Your task to perform on an android device: uninstall "Duolingo: language lessons" Image 0: 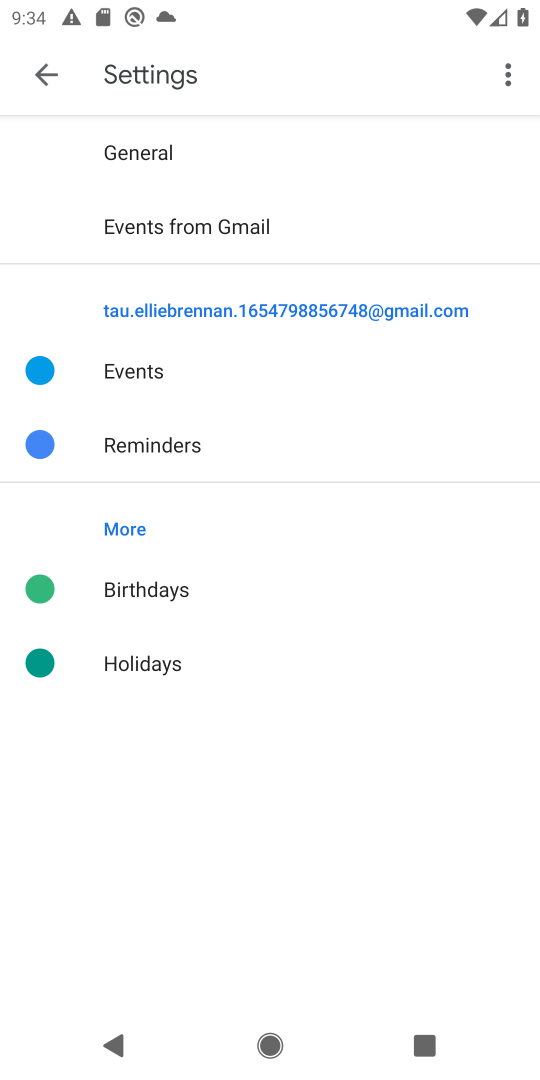
Step 0: click (46, 76)
Your task to perform on an android device: uninstall "Duolingo: language lessons" Image 1: 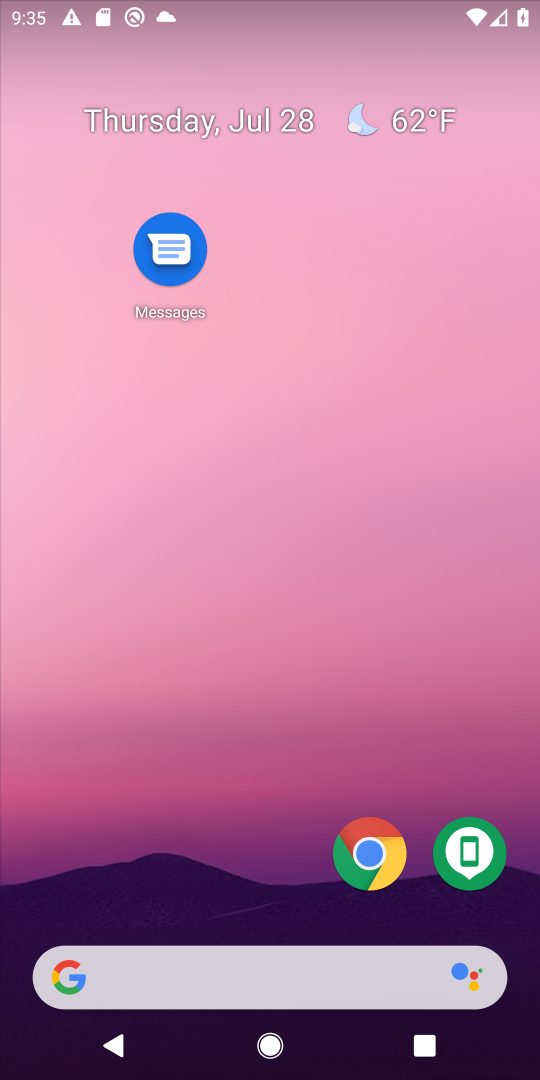
Step 1: drag from (221, 883) to (200, 2)
Your task to perform on an android device: uninstall "Duolingo: language lessons" Image 2: 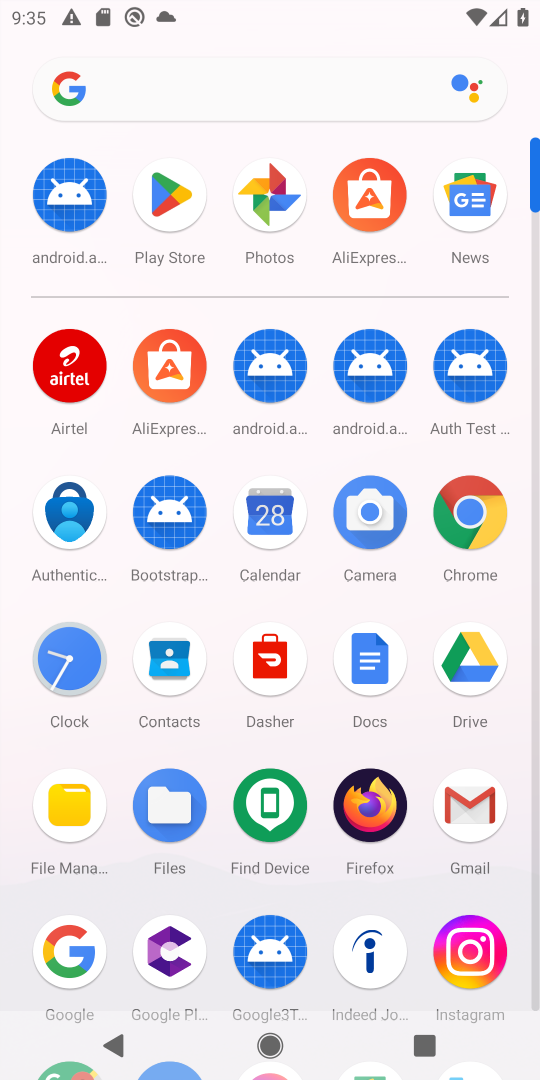
Step 2: click (179, 212)
Your task to perform on an android device: uninstall "Duolingo: language lessons" Image 3: 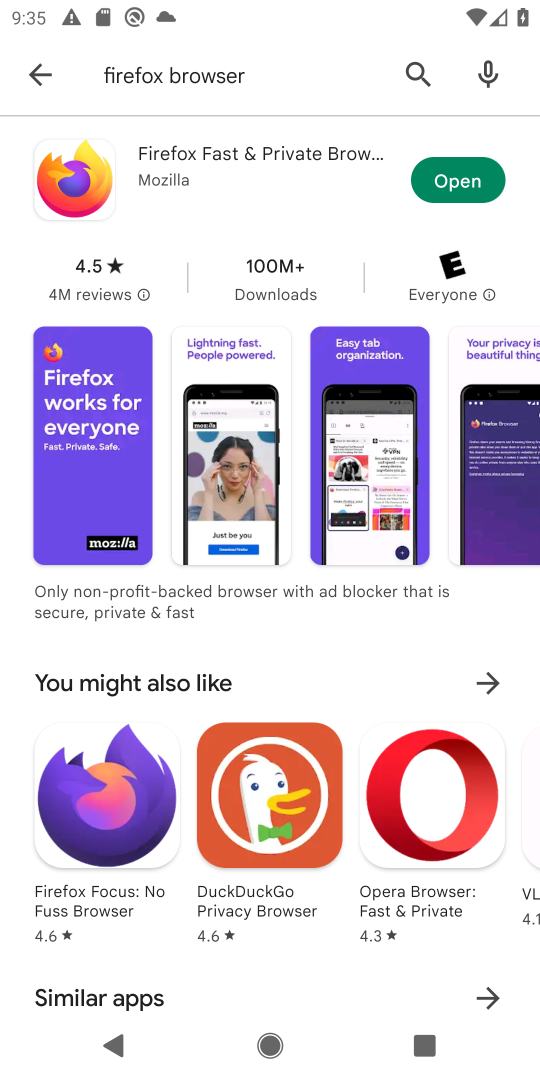
Step 3: click (36, 69)
Your task to perform on an android device: uninstall "Duolingo: language lessons" Image 4: 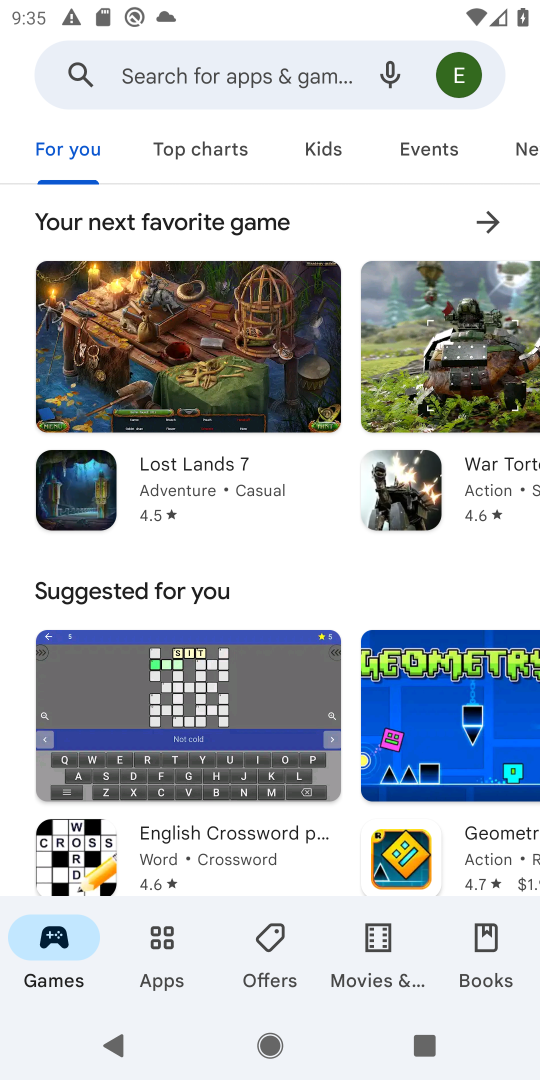
Step 4: type "Duolingo: language lessons"
Your task to perform on an android device: uninstall "Duolingo: language lessons" Image 5: 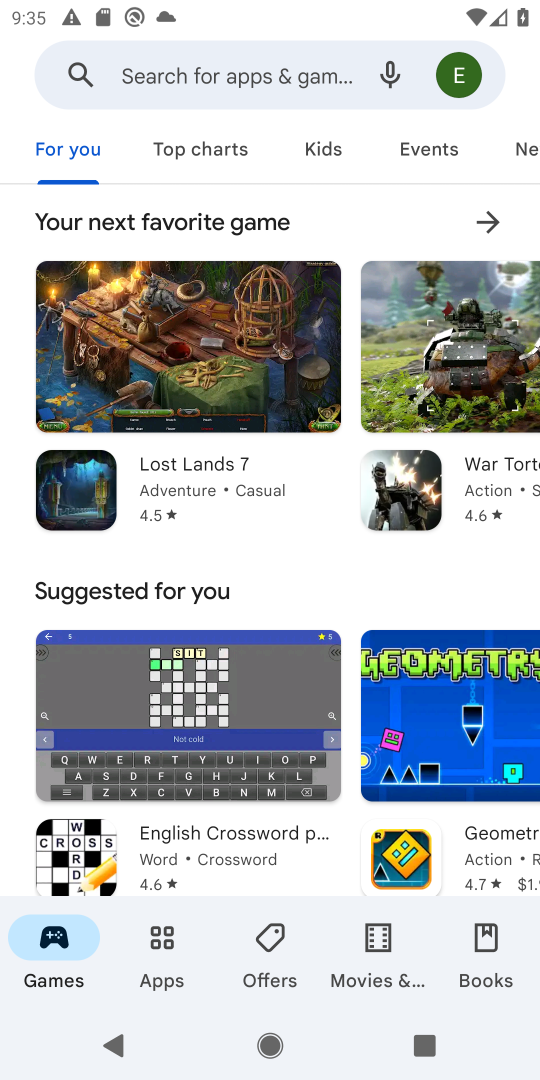
Step 5: click (314, 79)
Your task to perform on an android device: uninstall "Duolingo: language lessons" Image 6: 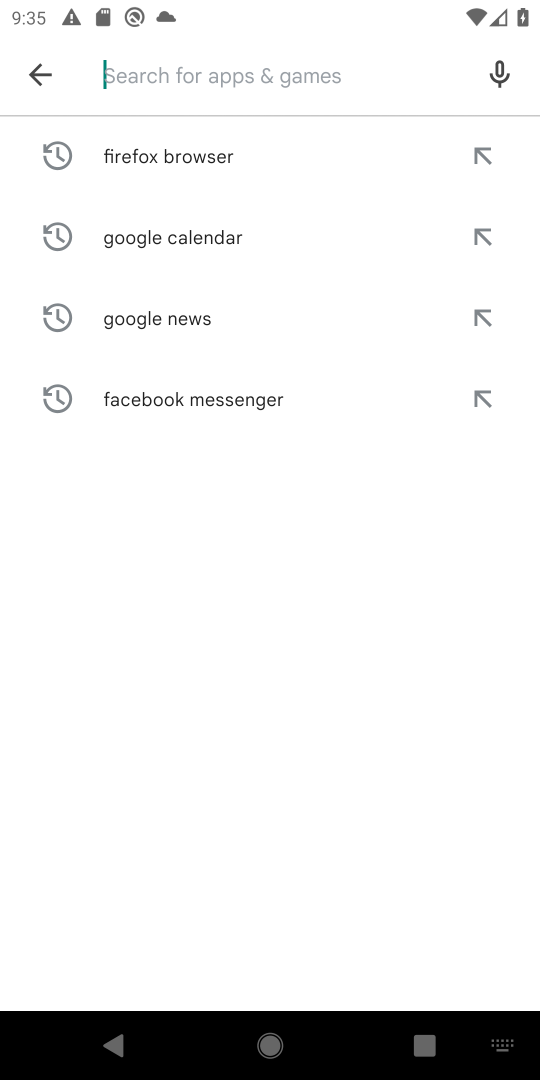
Step 6: type "Duolingo: language lessons"
Your task to perform on an android device: uninstall "Duolingo: language lessons" Image 7: 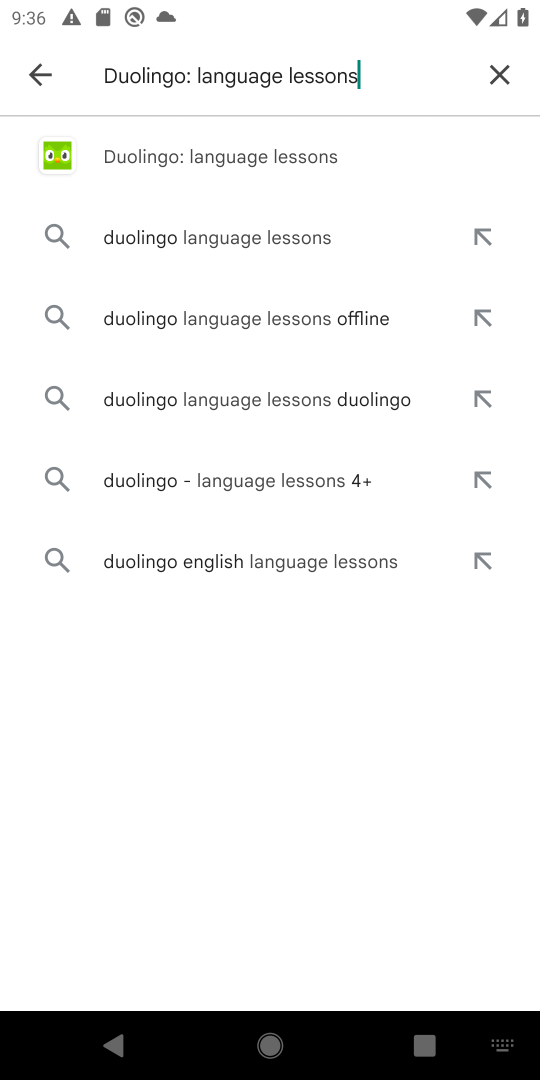
Step 7: click (204, 152)
Your task to perform on an android device: uninstall "Duolingo: language lessons" Image 8: 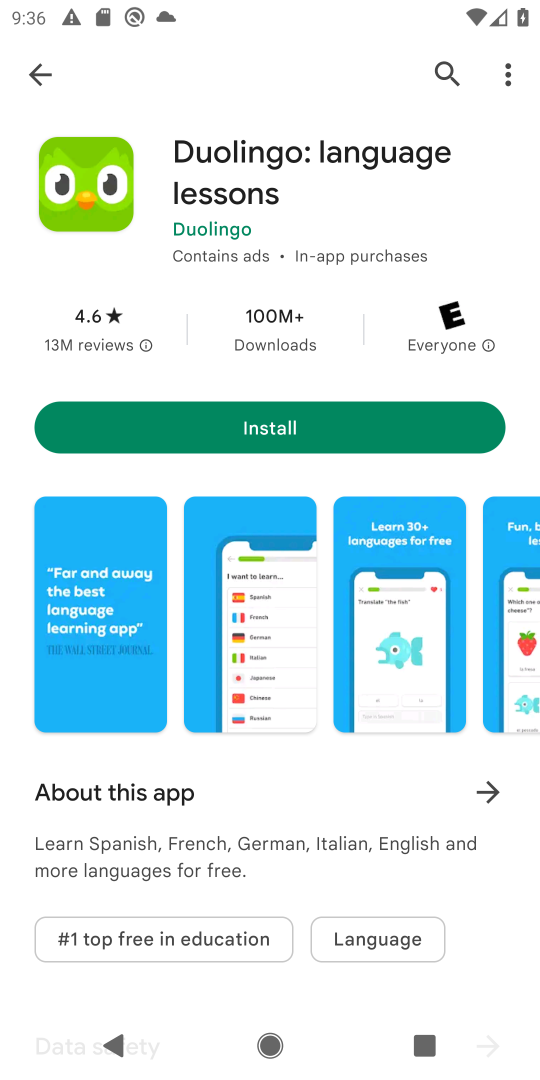
Step 8: task complete